Your task to perform on an android device: What's the time in San Francisco? Image 0: 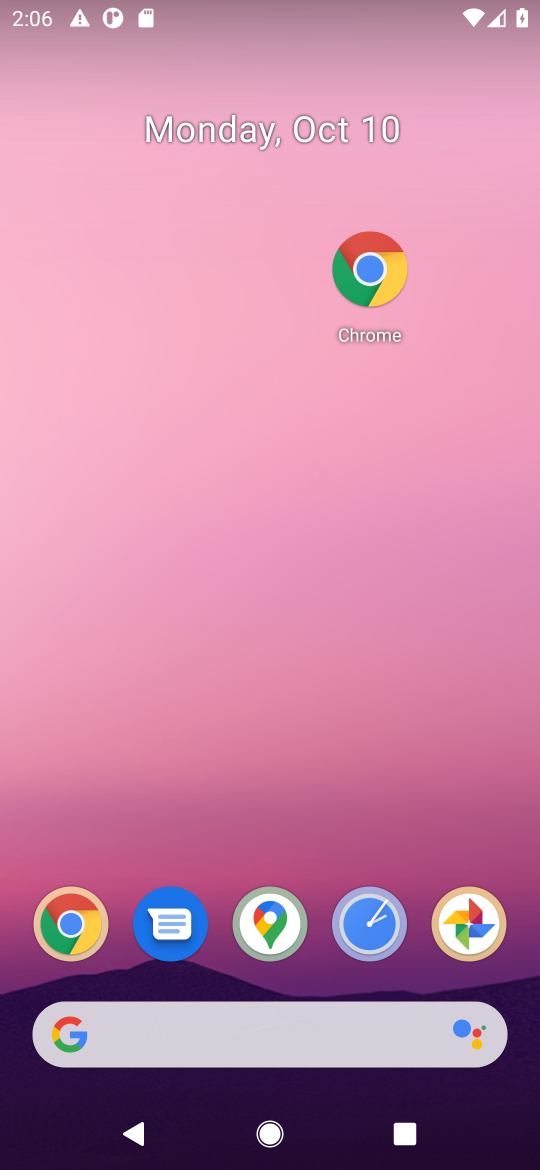
Step 0: drag from (211, 860) to (214, 7)
Your task to perform on an android device: What's the time in San Francisco? Image 1: 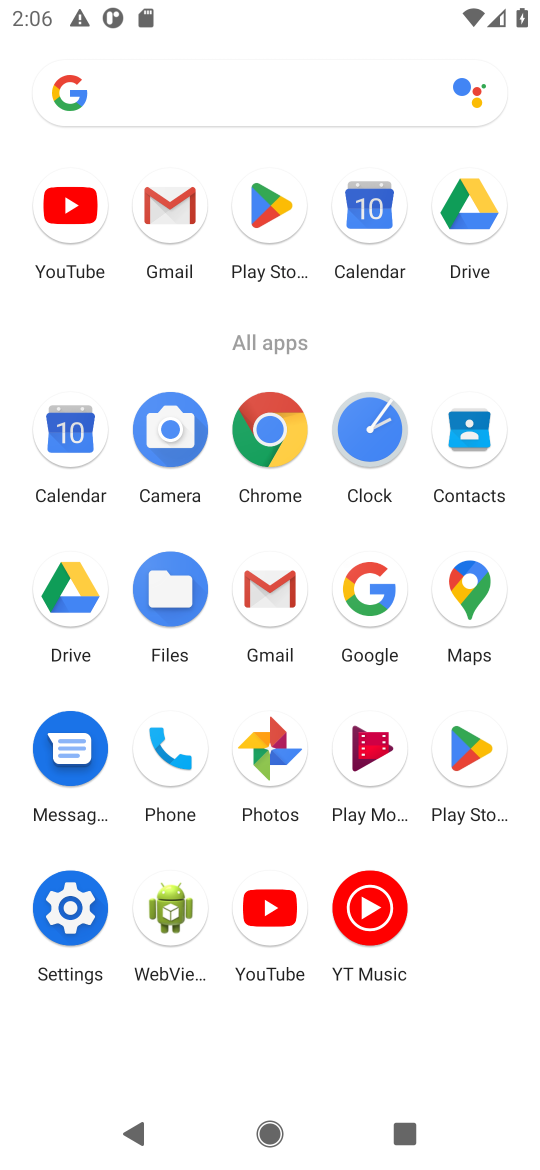
Step 1: click (265, 430)
Your task to perform on an android device: What's the time in San Francisco? Image 2: 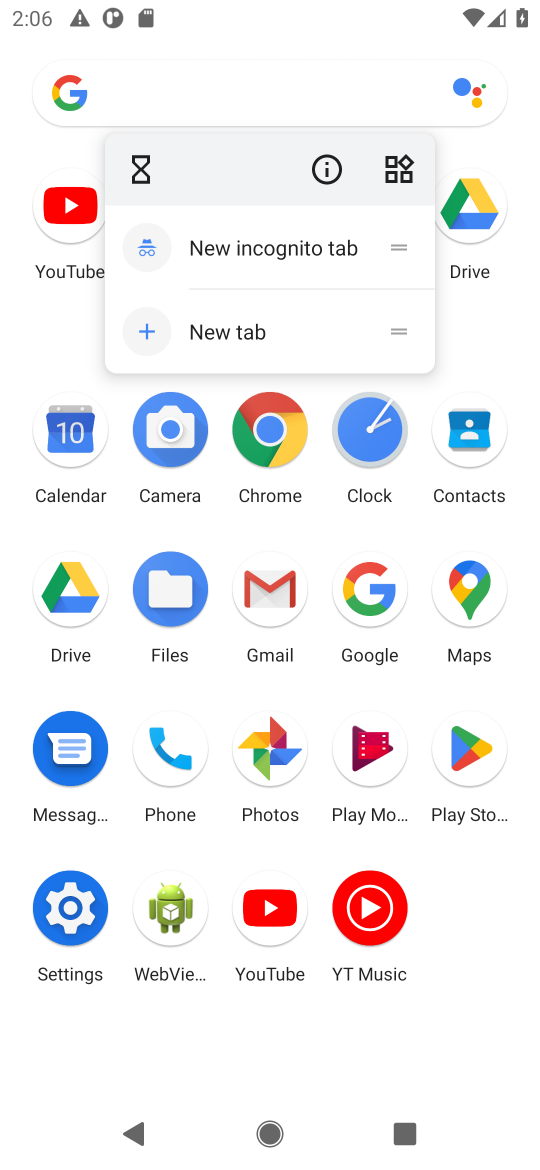
Step 2: click (269, 417)
Your task to perform on an android device: What's the time in San Francisco? Image 3: 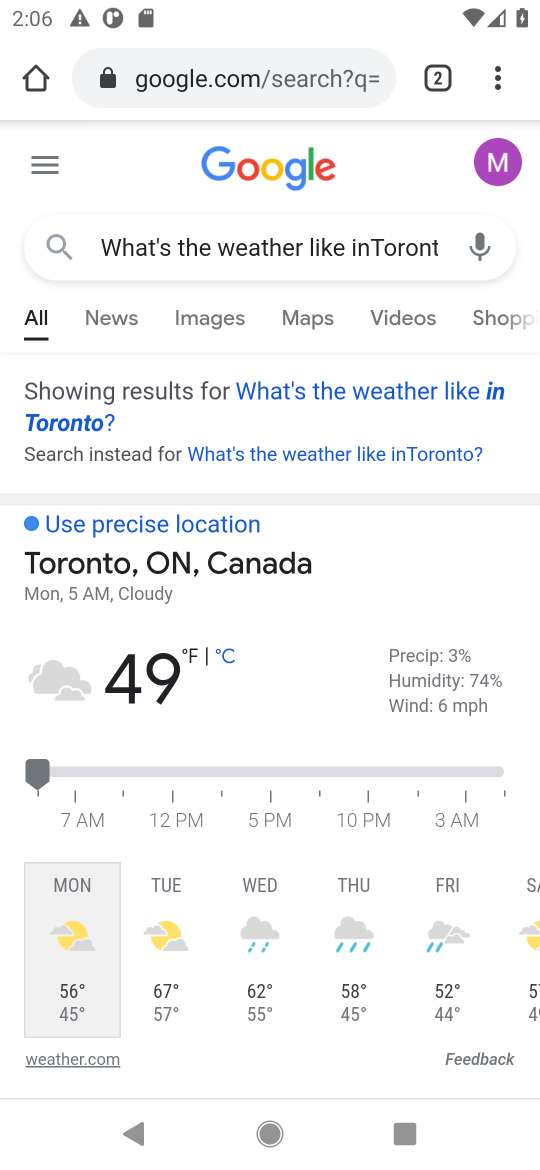
Step 3: click (234, 70)
Your task to perform on an android device: What's the time in San Francisco? Image 4: 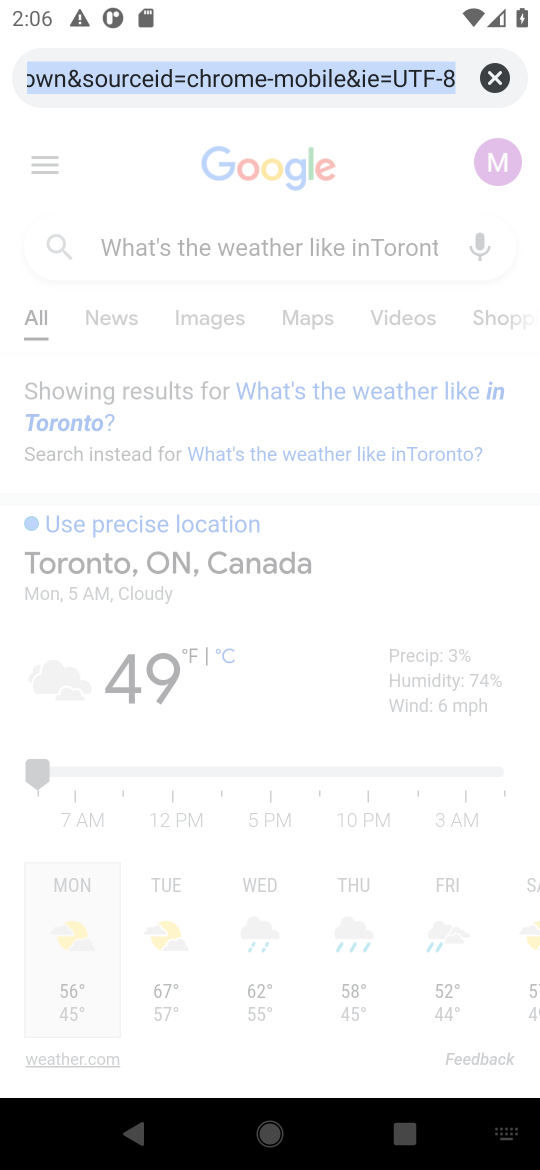
Step 4: click (497, 87)
Your task to perform on an android device: What's the time in San Francisco? Image 5: 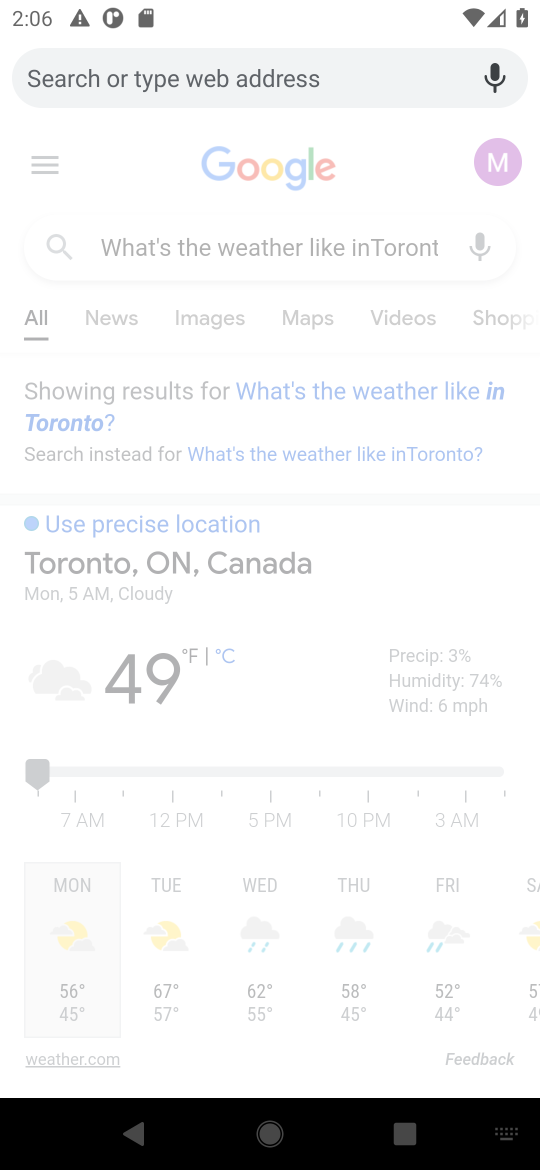
Step 5: type "What's the time in San Francisco?"
Your task to perform on an android device: What's the time in San Francisco? Image 6: 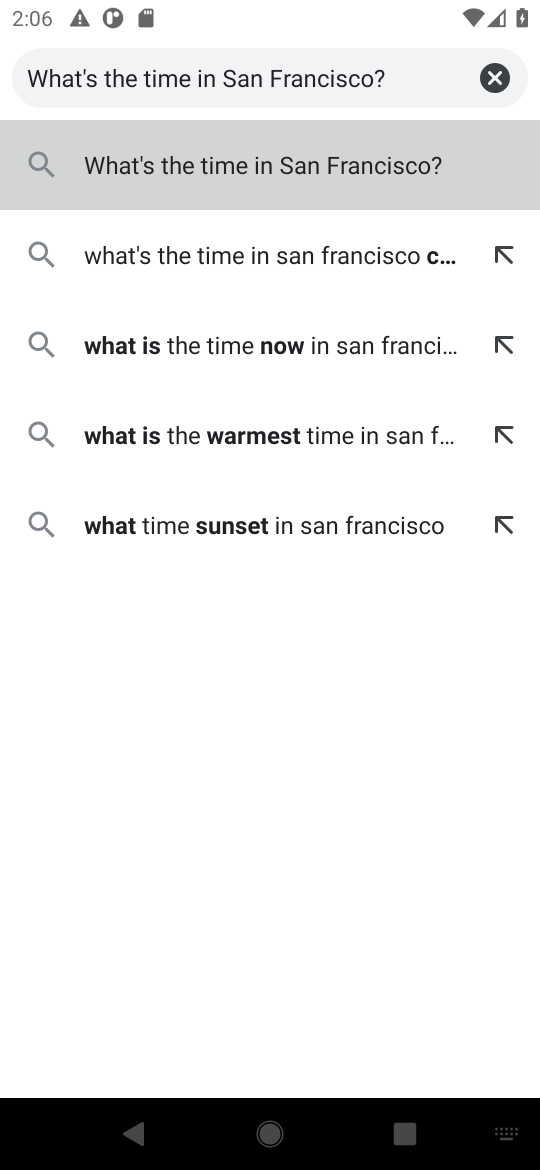
Step 6: click (213, 163)
Your task to perform on an android device: What's the time in San Francisco? Image 7: 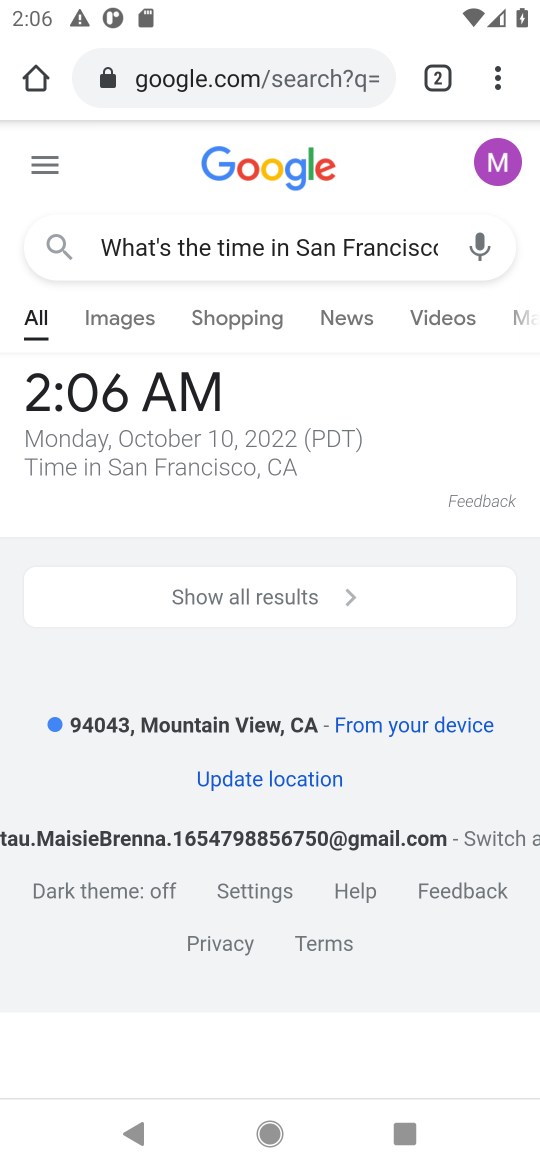
Step 7: task complete